Your task to perform on an android device: Open internet settings Image 0: 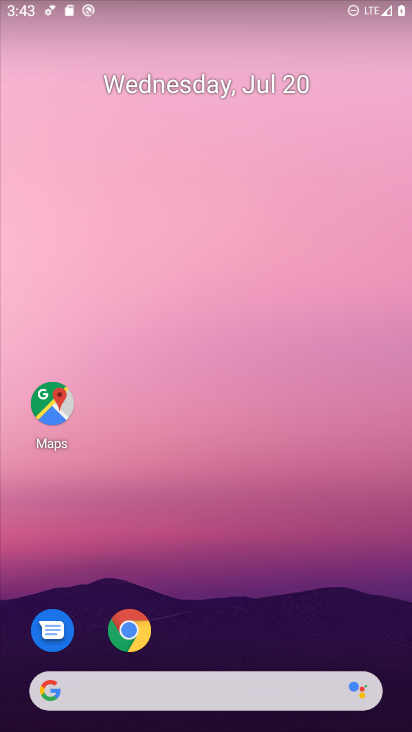
Step 0: press home button
Your task to perform on an android device: Open internet settings Image 1: 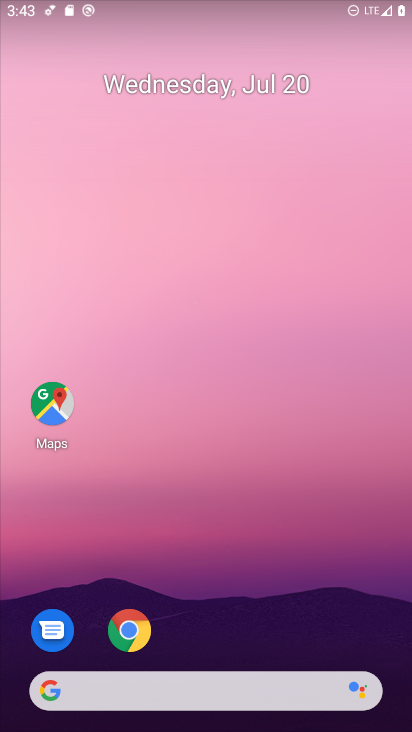
Step 1: drag from (231, 644) to (283, 9)
Your task to perform on an android device: Open internet settings Image 2: 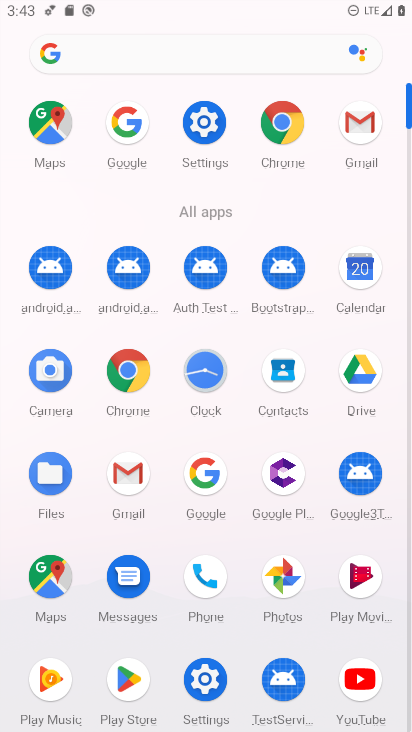
Step 2: click (214, 108)
Your task to perform on an android device: Open internet settings Image 3: 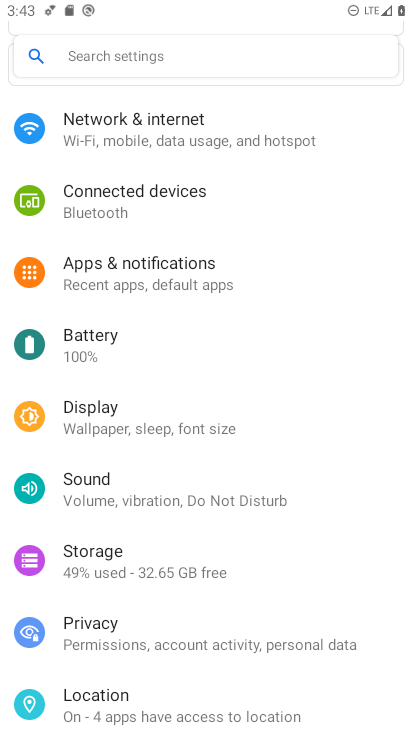
Step 3: click (152, 151)
Your task to perform on an android device: Open internet settings Image 4: 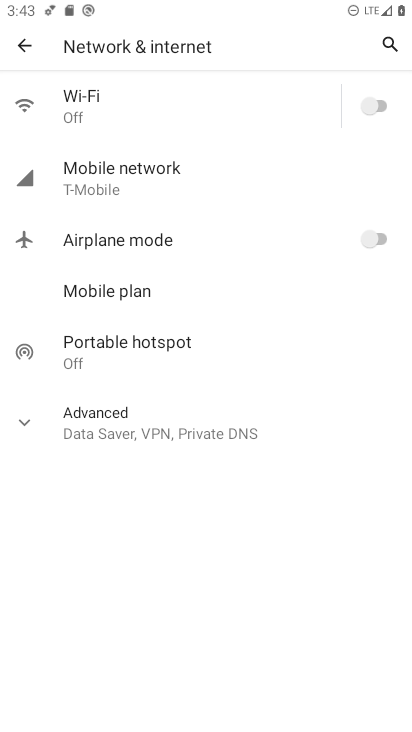
Step 4: click (27, 419)
Your task to perform on an android device: Open internet settings Image 5: 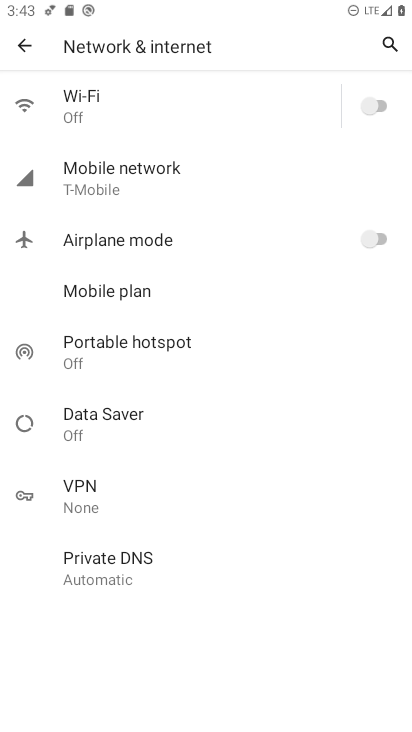
Step 5: task complete